Your task to perform on an android device: Open Youtube and go to the subscriptions tab Image 0: 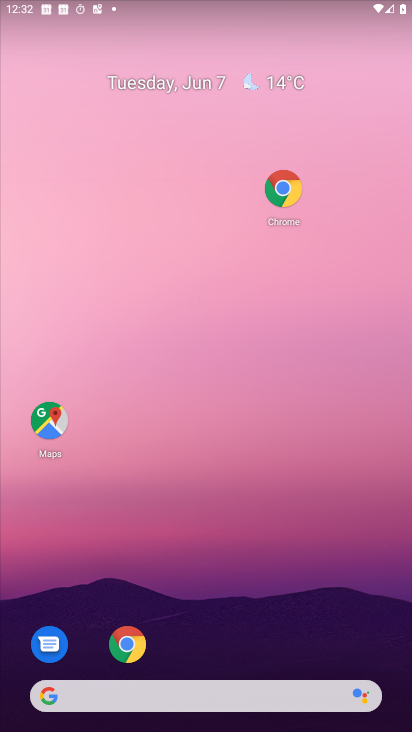
Step 0: drag from (281, 533) to (189, 22)
Your task to perform on an android device: Open Youtube and go to the subscriptions tab Image 1: 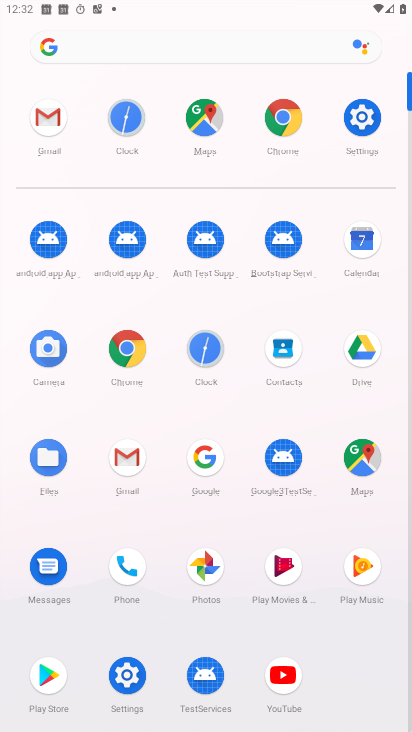
Step 1: click (289, 674)
Your task to perform on an android device: Open Youtube and go to the subscriptions tab Image 2: 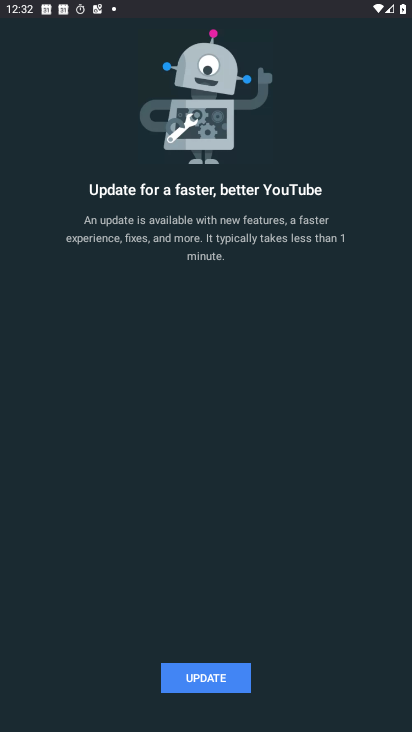
Step 2: click (227, 679)
Your task to perform on an android device: Open Youtube and go to the subscriptions tab Image 3: 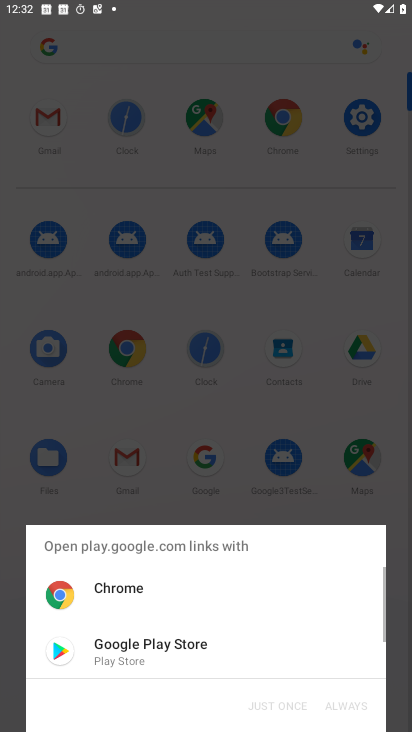
Step 3: click (144, 646)
Your task to perform on an android device: Open Youtube and go to the subscriptions tab Image 4: 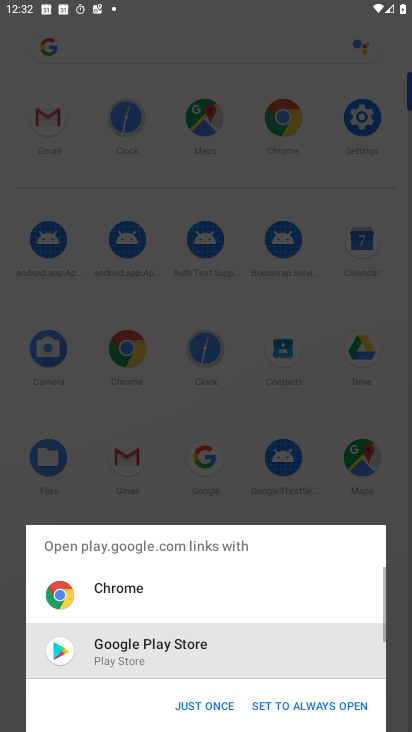
Step 4: click (211, 702)
Your task to perform on an android device: Open Youtube and go to the subscriptions tab Image 5: 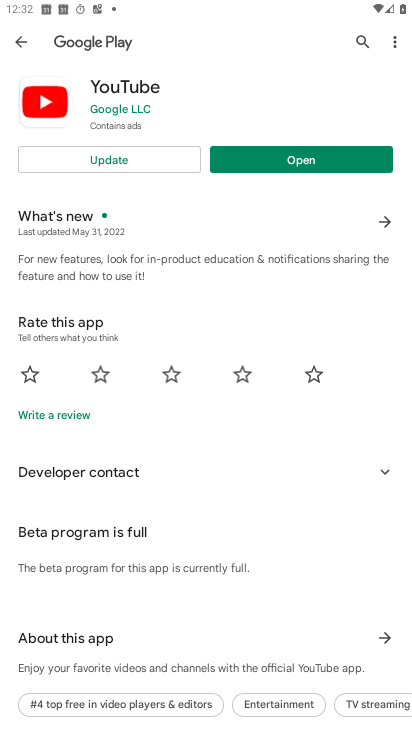
Step 5: click (99, 170)
Your task to perform on an android device: Open Youtube and go to the subscriptions tab Image 6: 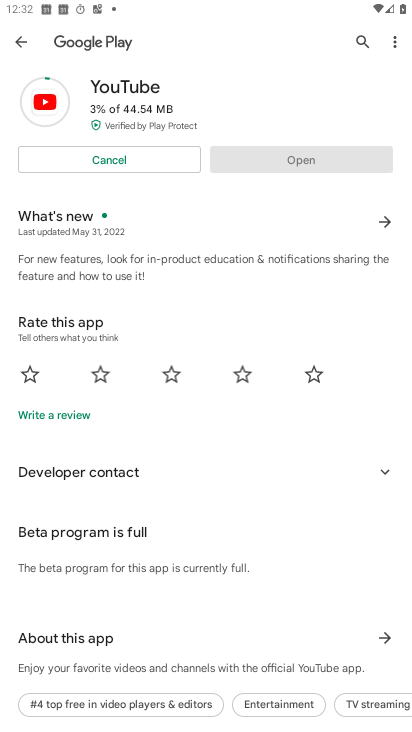
Step 6: task complete